Your task to perform on an android device: toggle pop-ups in chrome Image 0: 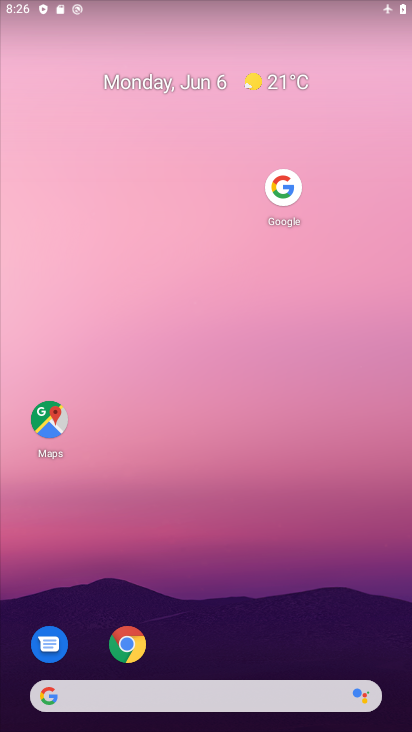
Step 0: click (128, 642)
Your task to perform on an android device: toggle pop-ups in chrome Image 1: 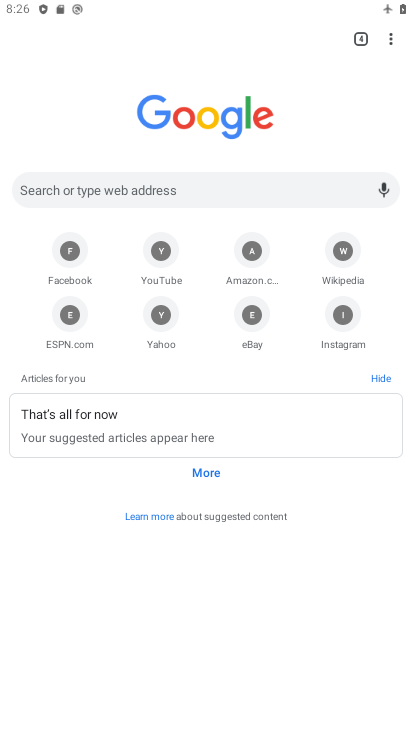
Step 1: click (387, 41)
Your task to perform on an android device: toggle pop-ups in chrome Image 2: 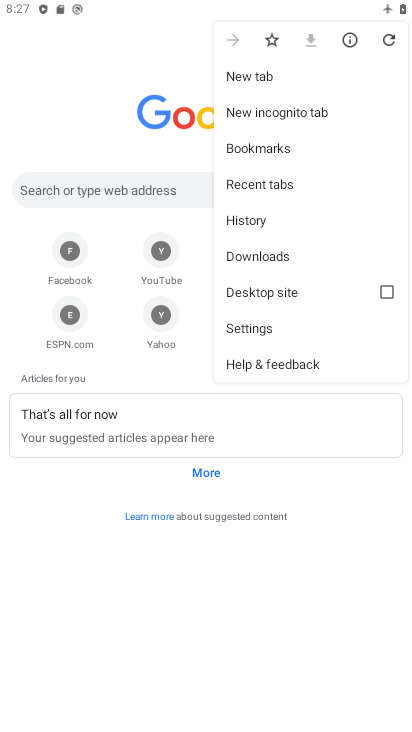
Step 2: click (272, 327)
Your task to perform on an android device: toggle pop-ups in chrome Image 3: 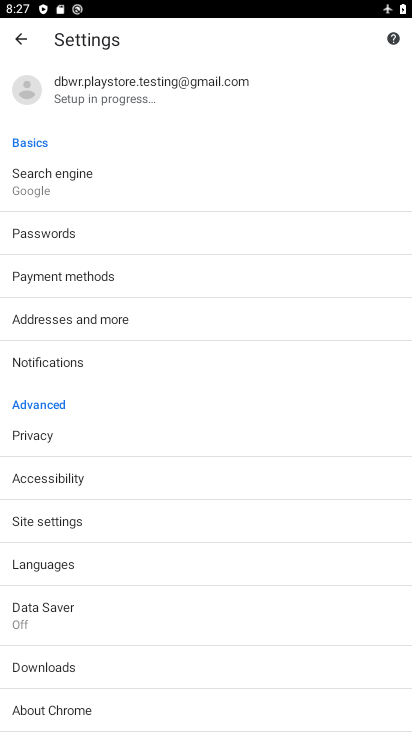
Step 3: drag from (92, 577) to (113, 194)
Your task to perform on an android device: toggle pop-ups in chrome Image 4: 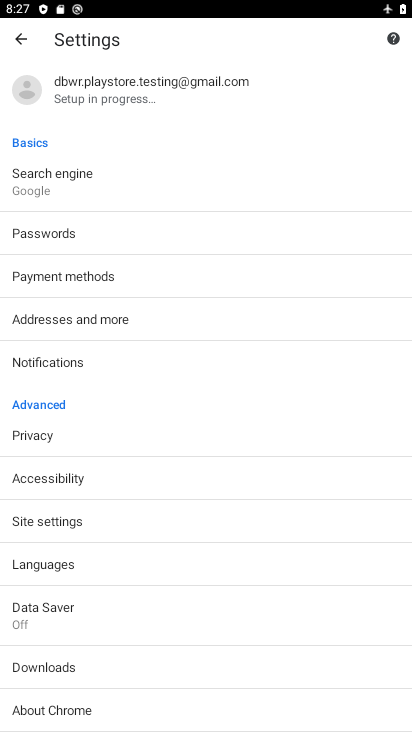
Step 4: click (61, 520)
Your task to perform on an android device: toggle pop-ups in chrome Image 5: 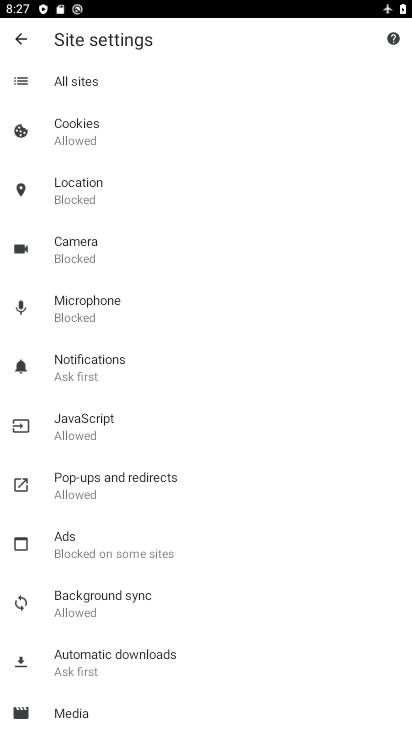
Step 5: click (86, 496)
Your task to perform on an android device: toggle pop-ups in chrome Image 6: 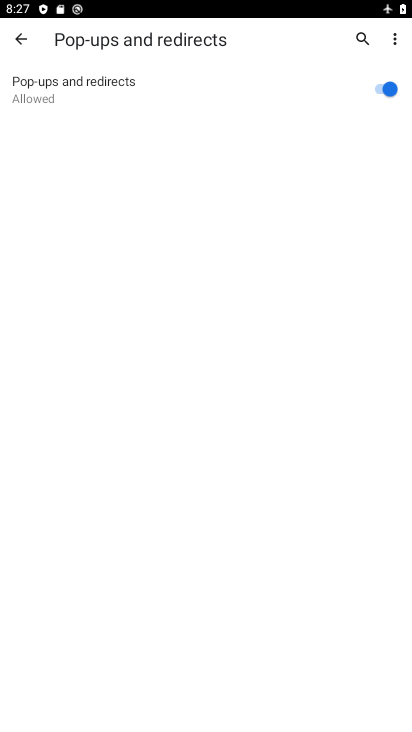
Step 6: click (384, 82)
Your task to perform on an android device: toggle pop-ups in chrome Image 7: 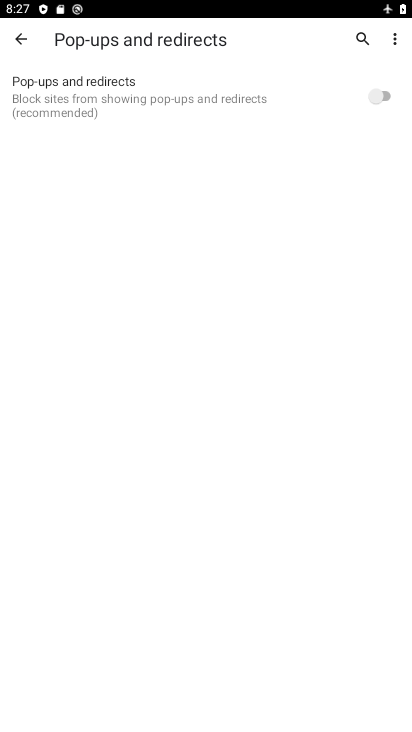
Step 7: task complete